Your task to perform on an android device: turn off notifications settings in the gmail app Image 0: 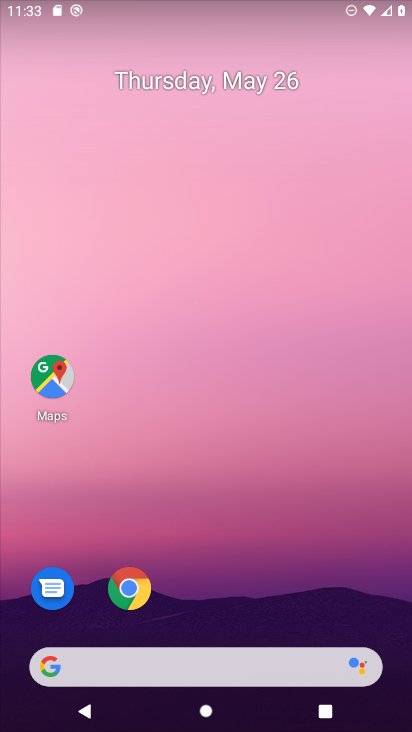
Step 0: drag from (388, 623) to (357, 63)
Your task to perform on an android device: turn off notifications settings in the gmail app Image 1: 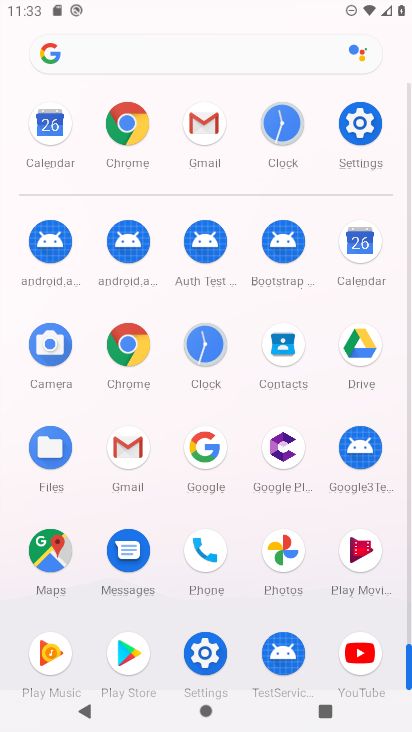
Step 1: click (126, 448)
Your task to perform on an android device: turn off notifications settings in the gmail app Image 2: 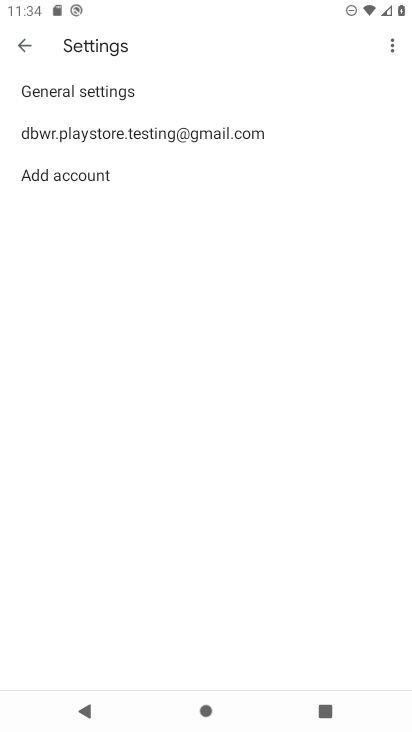
Step 2: click (127, 135)
Your task to perform on an android device: turn off notifications settings in the gmail app Image 3: 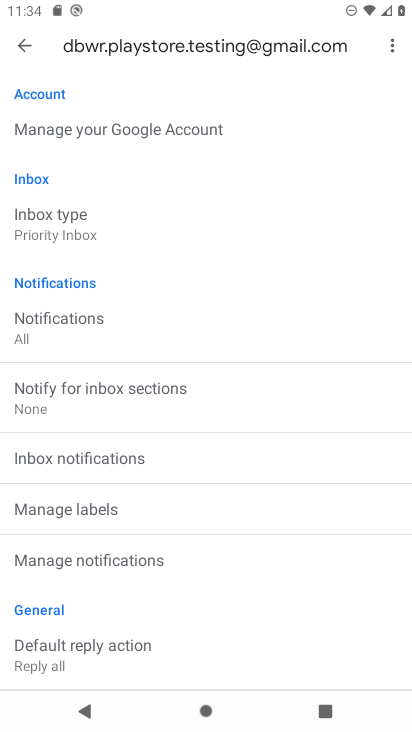
Step 3: click (95, 555)
Your task to perform on an android device: turn off notifications settings in the gmail app Image 4: 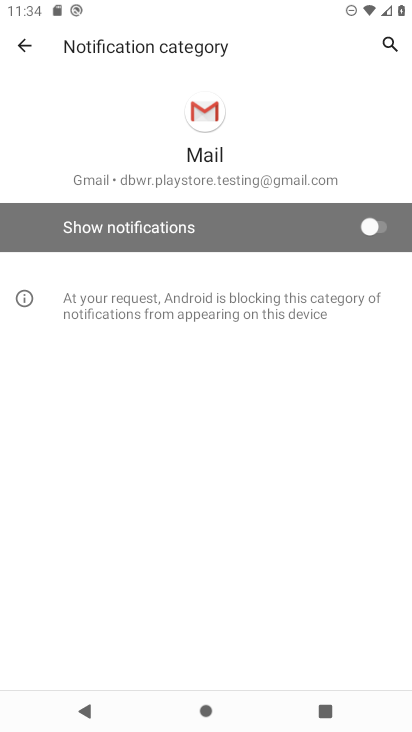
Step 4: task complete